Your task to perform on an android device: When is my next meeting? Image 0: 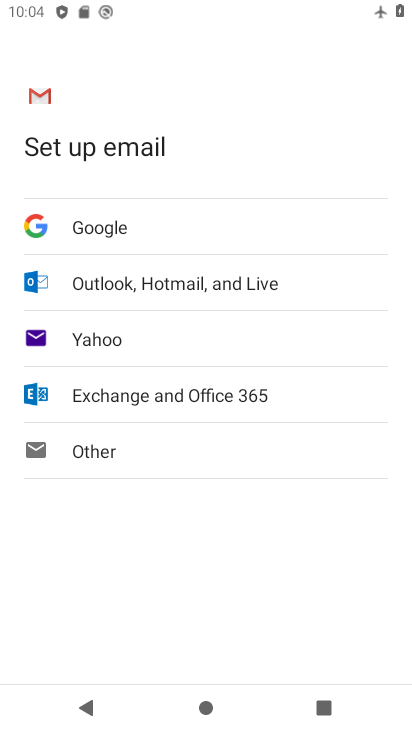
Step 0: press home button
Your task to perform on an android device: When is my next meeting? Image 1: 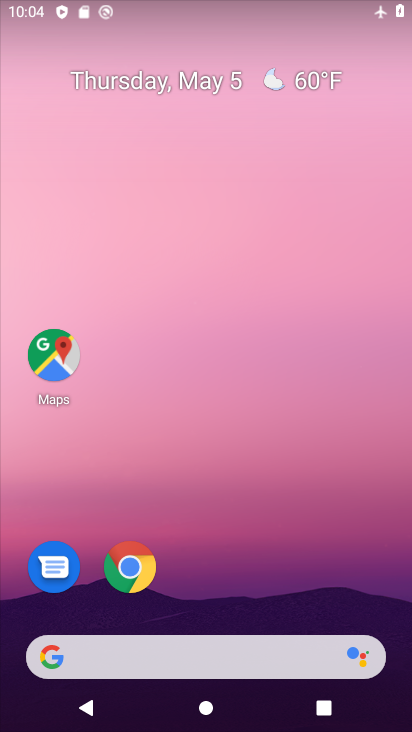
Step 1: drag from (201, 576) to (202, 141)
Your task to perform on an android device: When is my next meeting? Image 2: 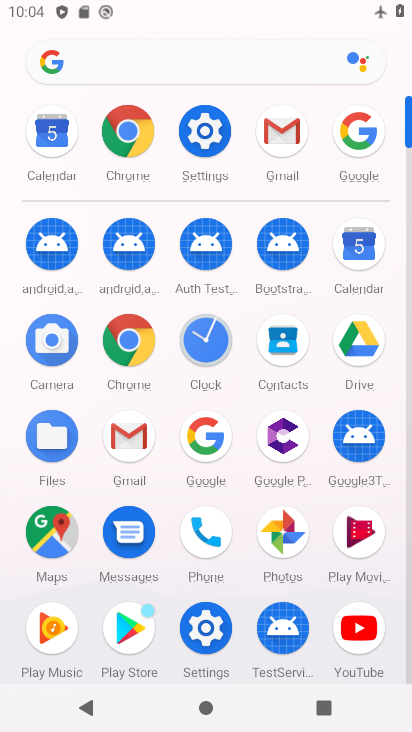
Step 2: click (345, 265)
Your task to perform on an android device: When is my next meeting? Image 3: 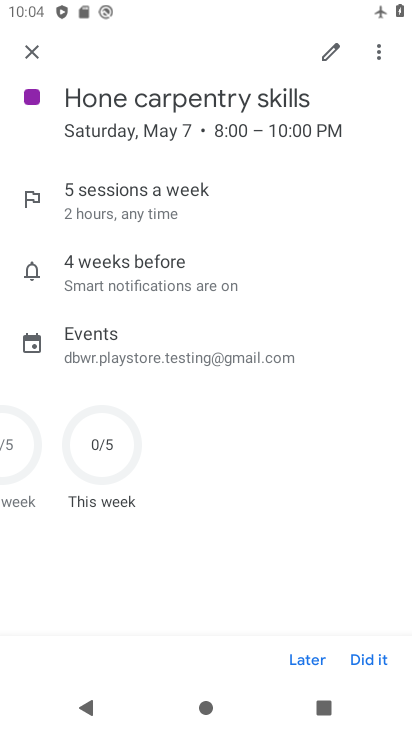
Step 3: click (32, 51)
Your task to perform on an android device: When is my next meeting? Image 4: 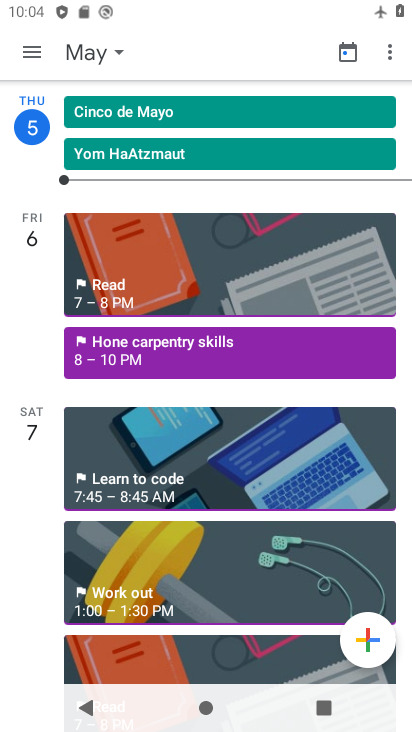
Step 4: click (107, 58)
Your task to perform on an android device: When is my next meeting? Image 5: 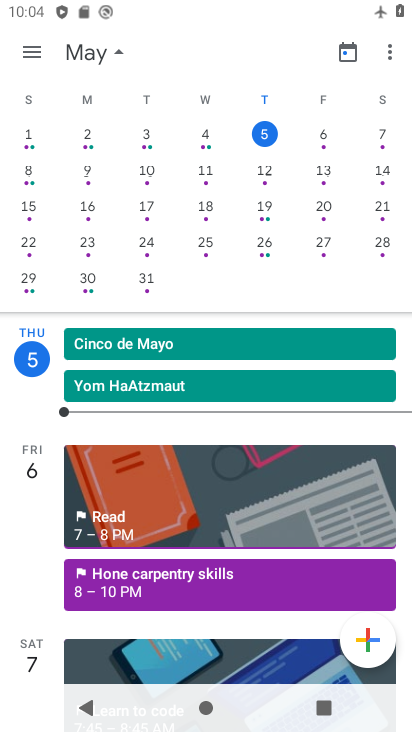
Step 5: click (369, 135)
Your task to perform on an android device: When is my next meeting? Image 6: 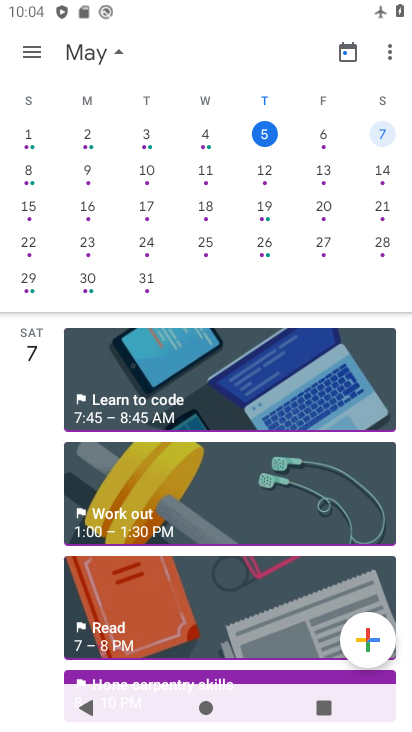
Step 6: drag from (313, 646) to (313, 583)
Your task to perform on an android device: When is my next meeting? Image 7: 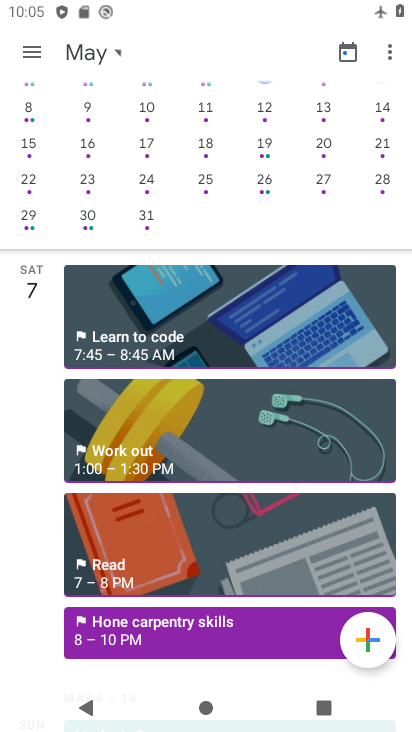
Step 7: drag from (287, 339) to (293, 420)
Your task to perform on an android device: When is my next meeting? Image 8: 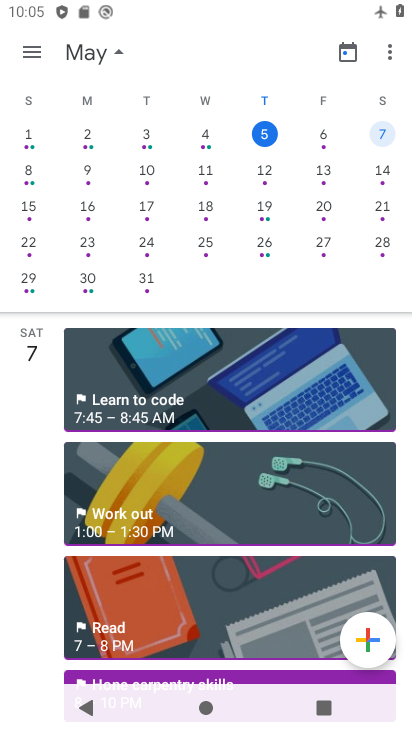
Step 8: click (35, 181)
Your task to perform on an android device: When is my next meeting? Image 9: 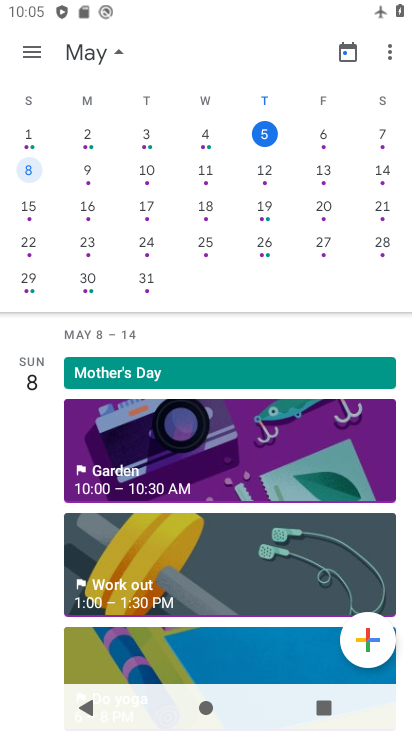
Step 9: task complete